Your task to perform on an android device: turn off location Image 0: 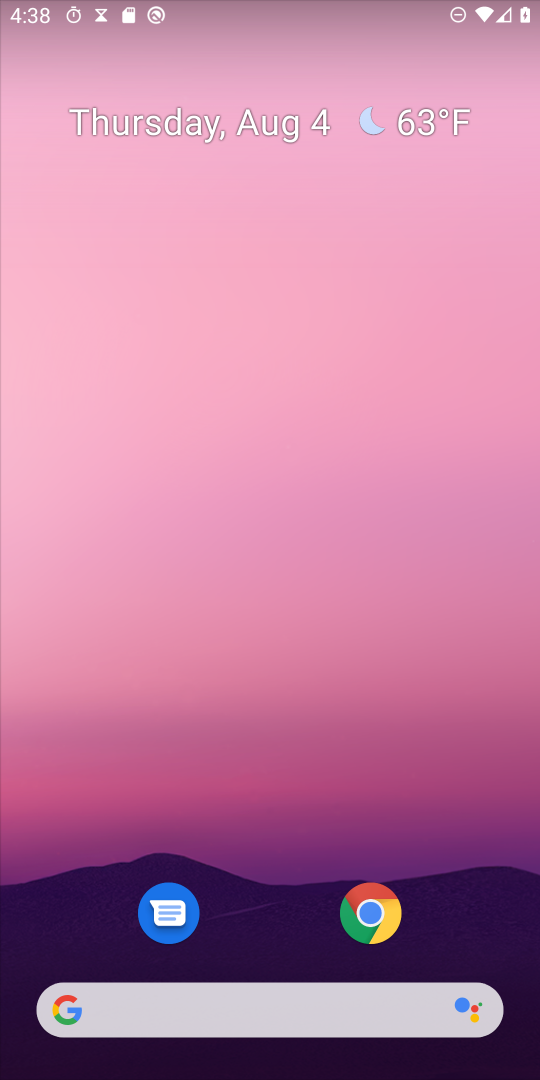
Step 0: drag from (357, 1011) to (339, 121)
Your task to perform on an android device: turn off location Image 1: 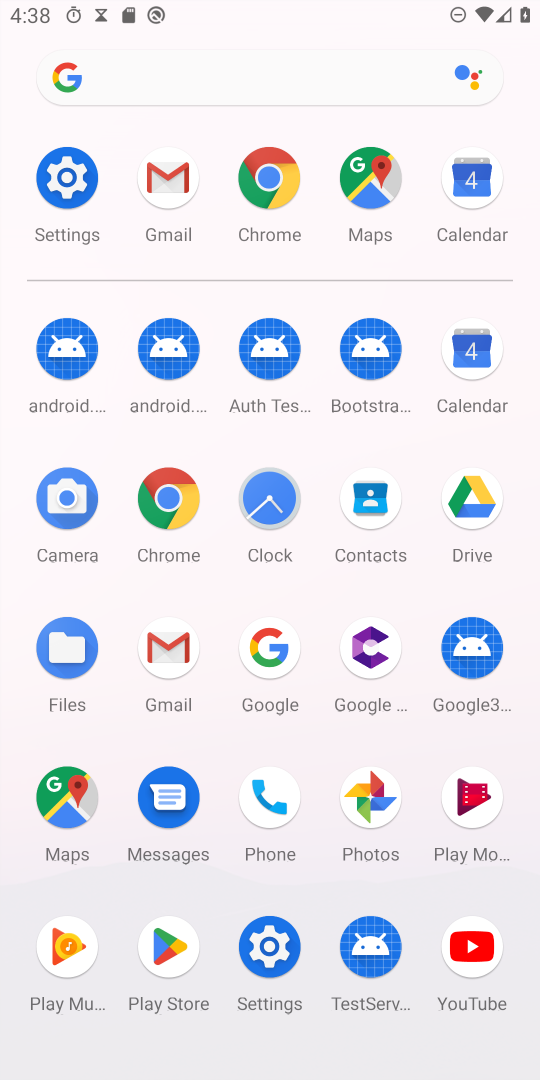
Step 1: click (48, 183)
Your task to perform on an android device: turn off location Image 2: 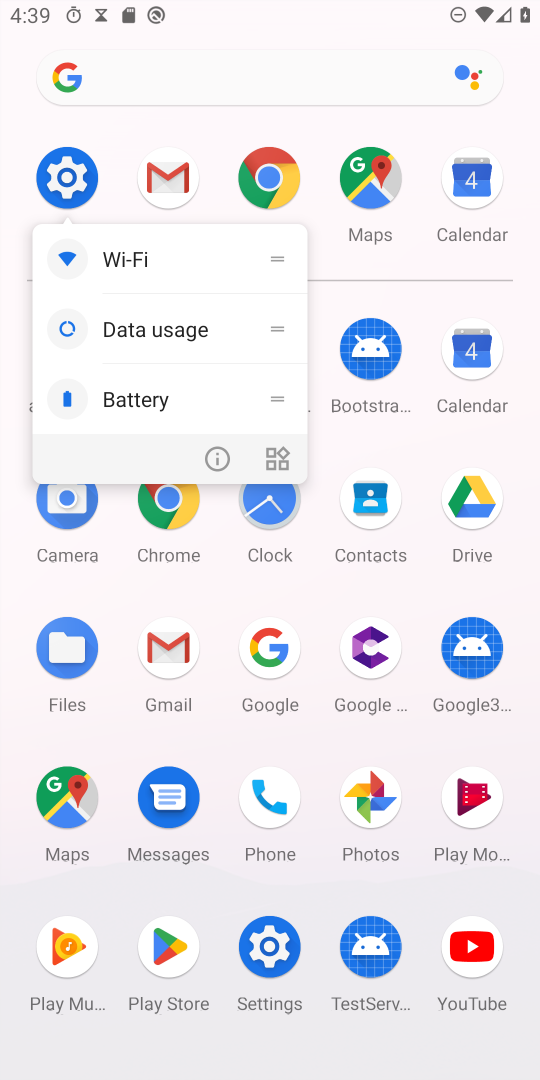
Step 2: click (262, 919)
Your task to perform on an android device: turn off location Image 3: 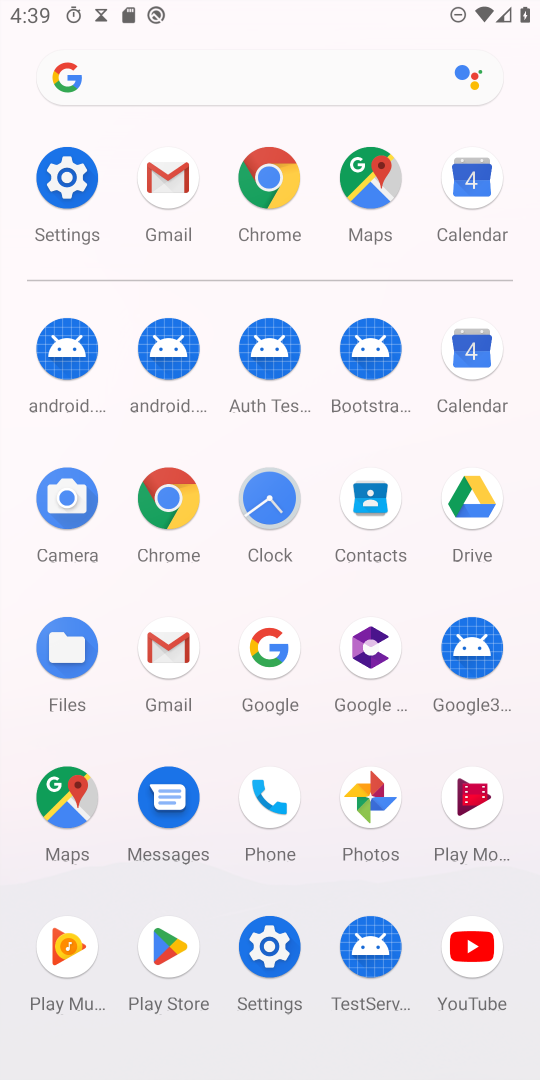
Step 3: click (262, 919)
Your task to perform on an android device: turn off location Image 4: 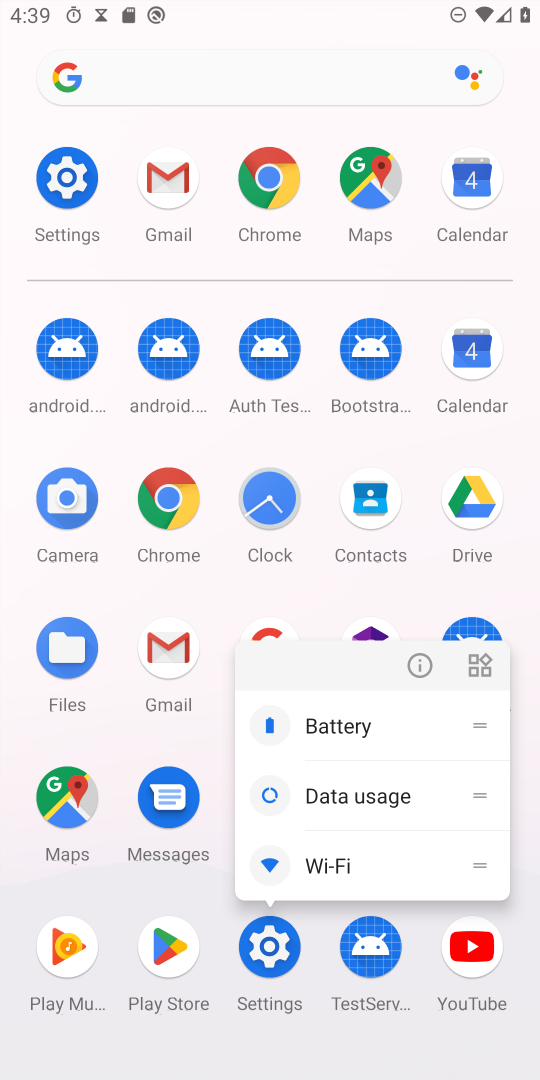
Step 4: click (262, 931)
Your task to perform on an android device: turn off location Image 5: 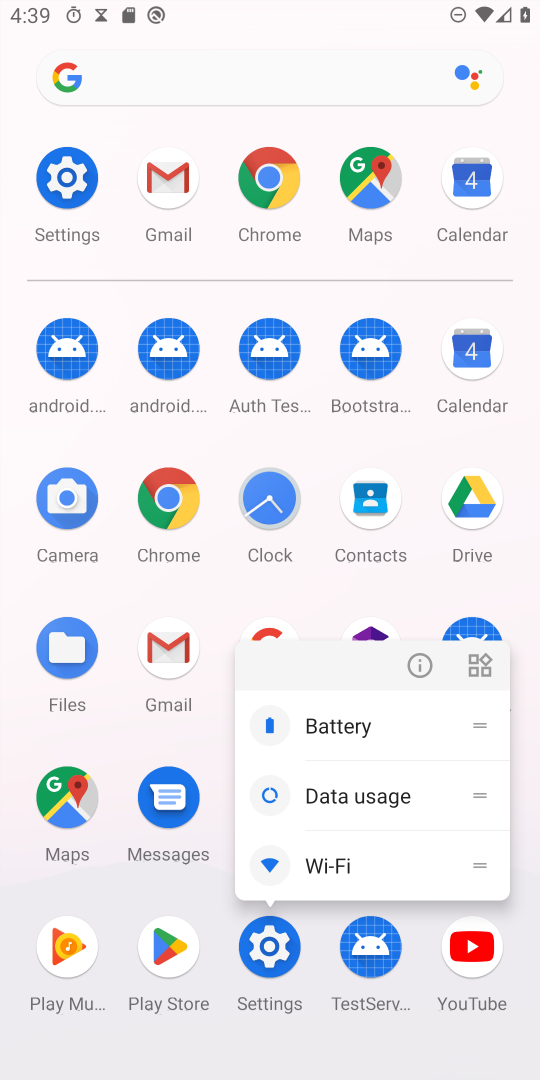
Step 5: click (262, 931)
Your task to perform on an android device: turn off location Image 6: 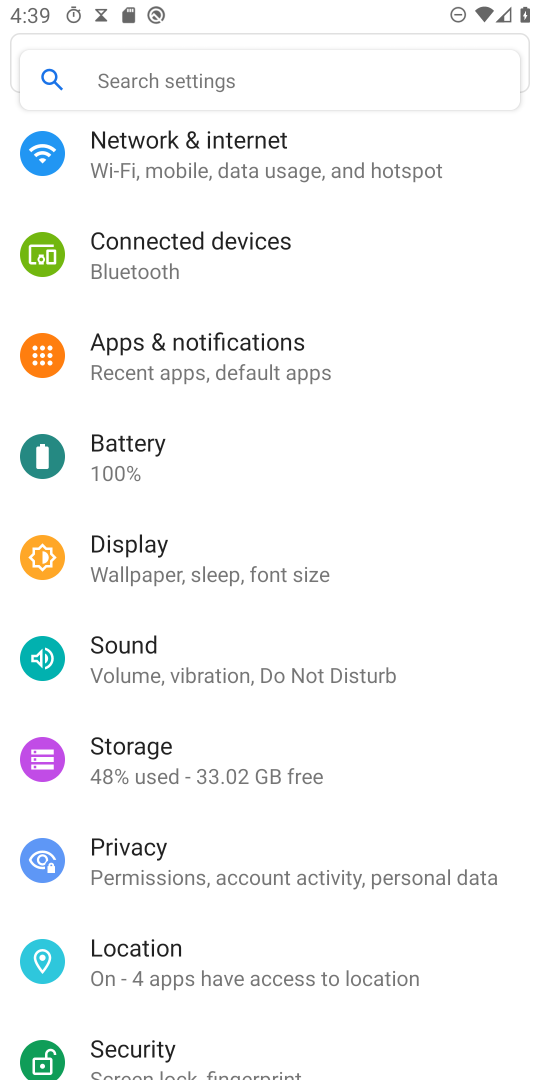
Step 6: click (193, 948)
Your task to perform on an android device: turn off location Image 7: 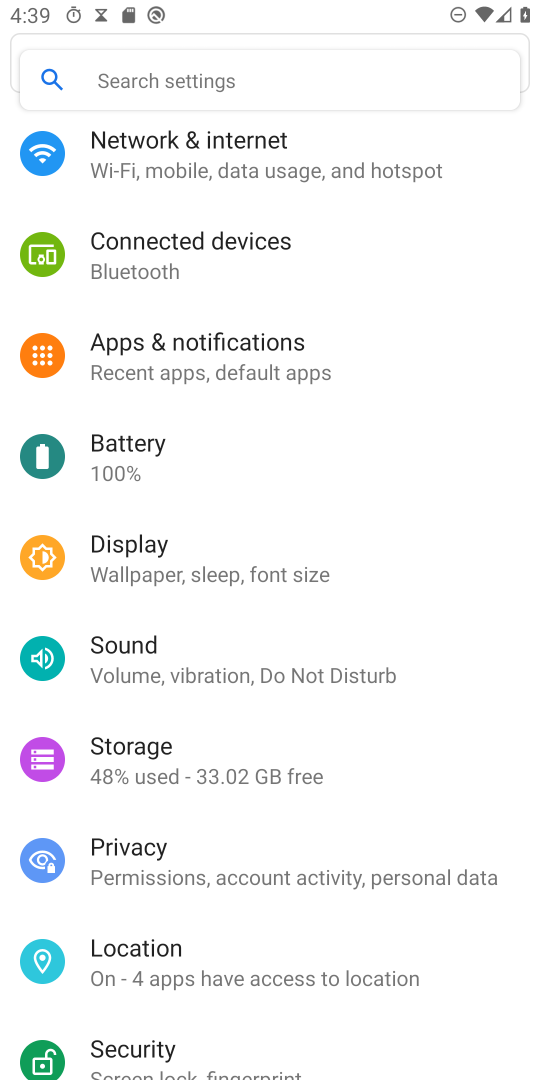
Step 7: click (193, 948)
Your task to perform on an android device: turn off location Image 8: 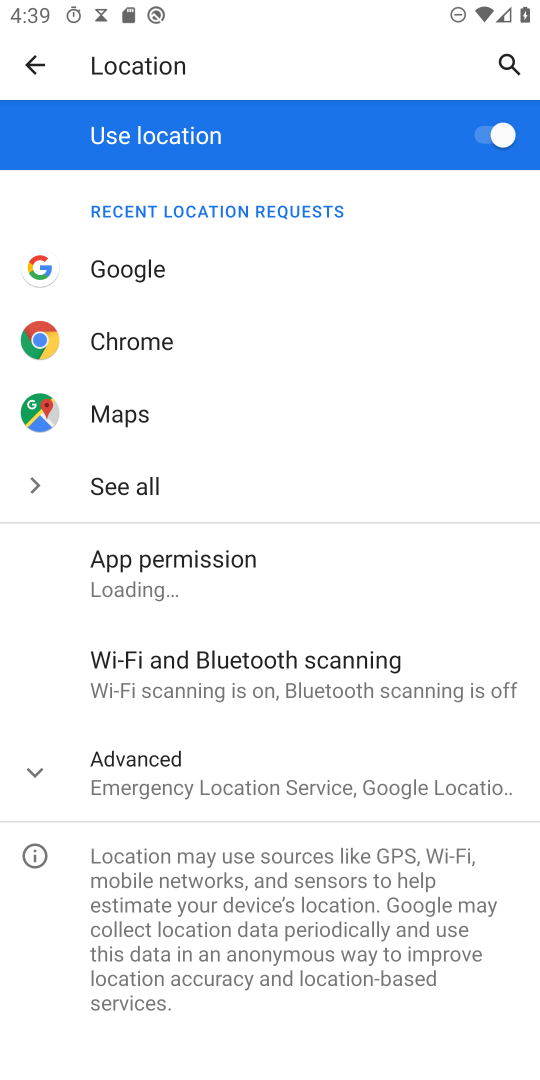
Step 8: click (489, 132)
Your task to perform on an android device: turn off location Image 9: 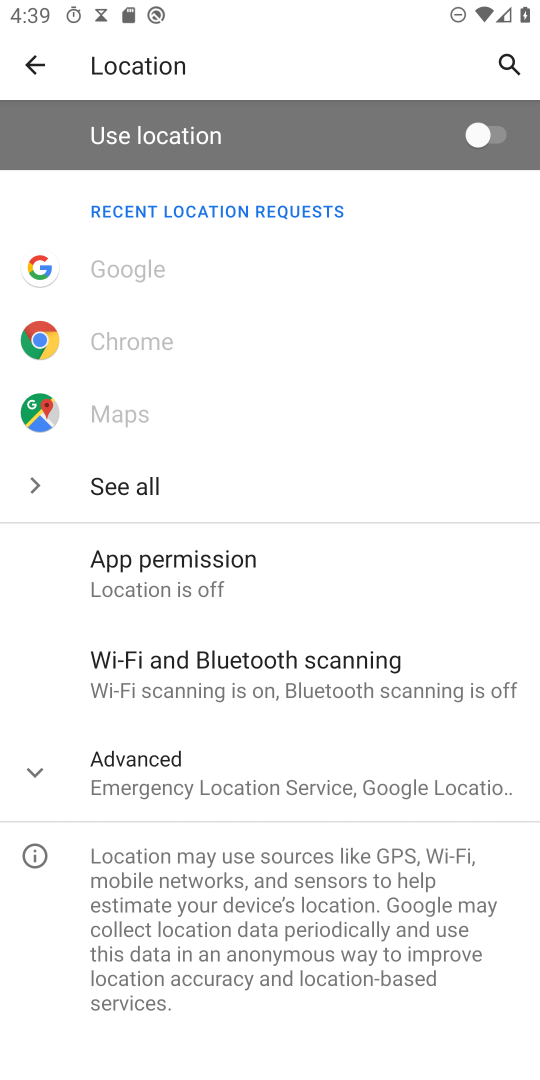
Step 9: task complete